Your task to perform on an android device: Add "razer blade" to the cart on ebay.com, then select checkout. Image 0: 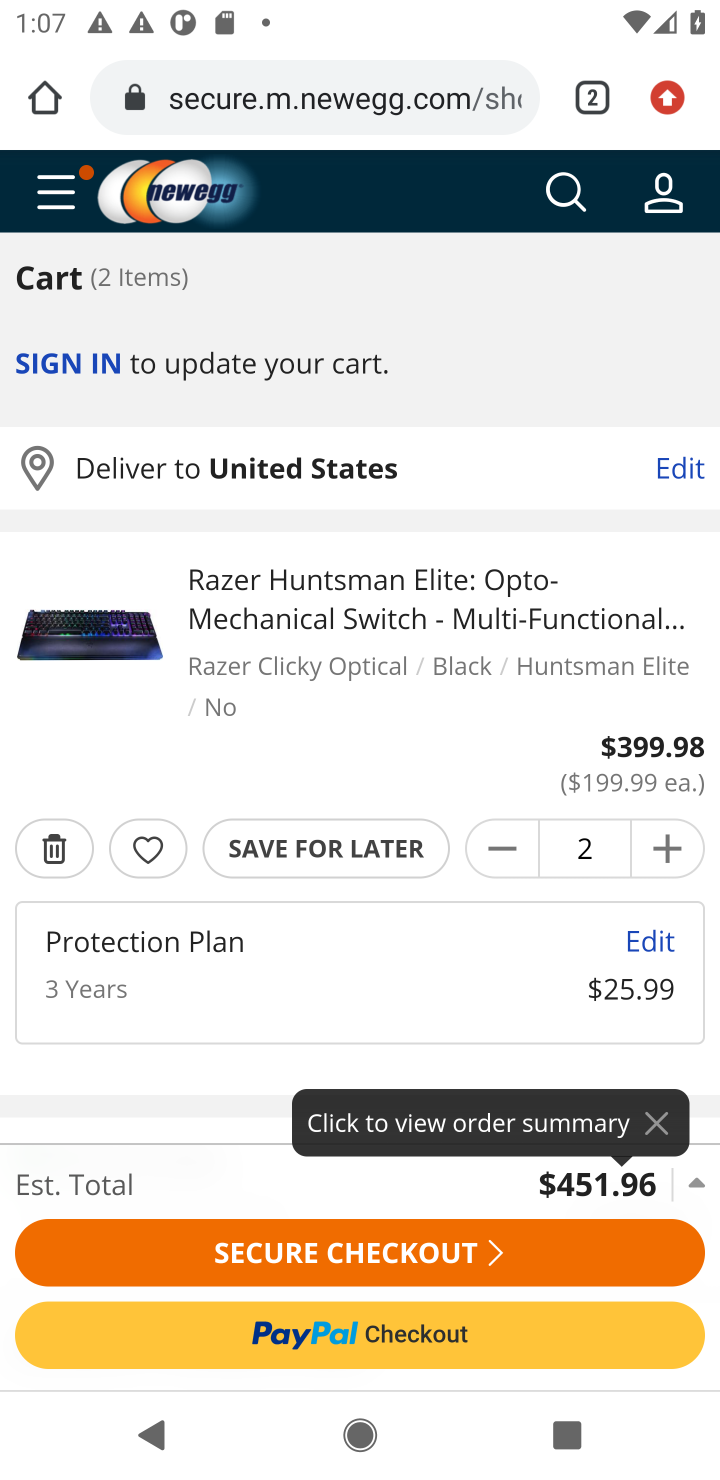
Step 0: press home button
Your task to perform on an android device: Add "razer blade" to the cart on ebay.com, then select checkout. Image 1: 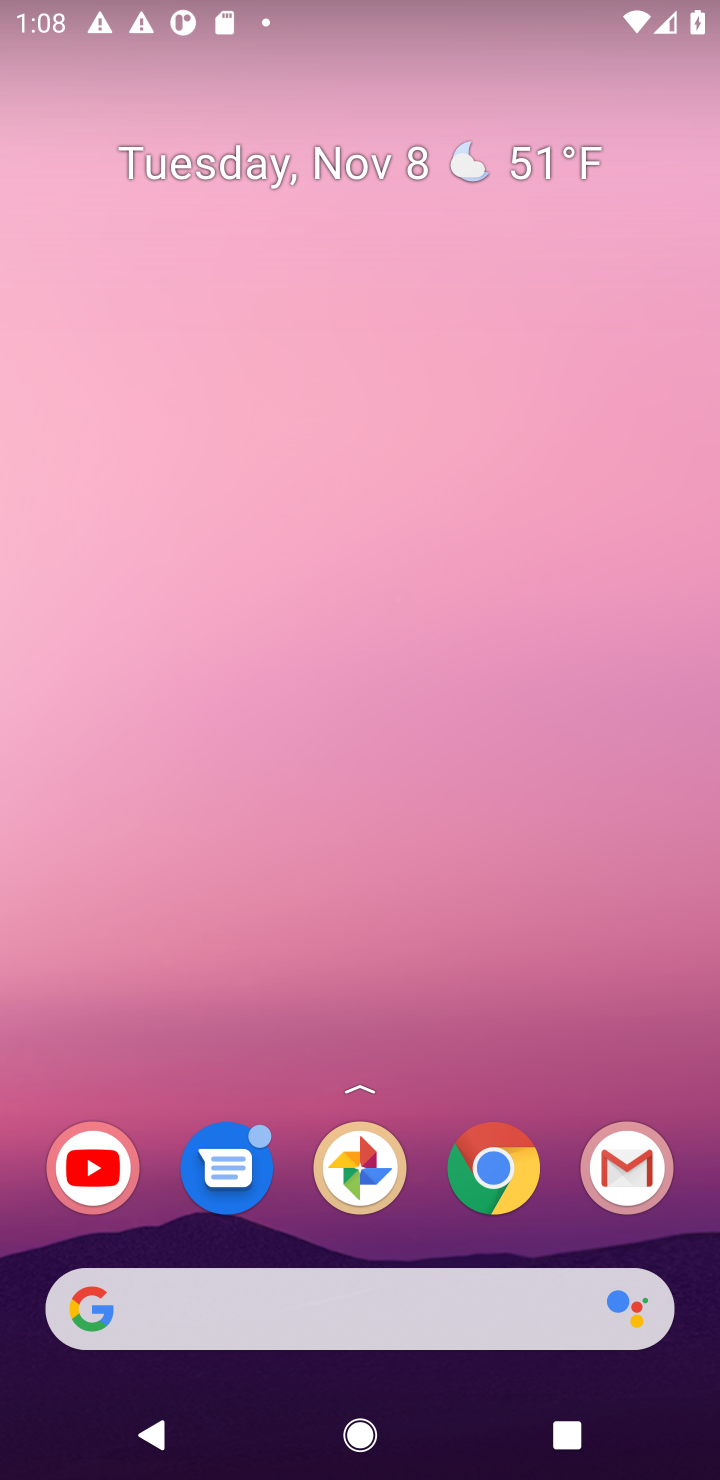
Step 1: drag from (403, 1186) to (538, 374)
Your task to perform on an android device: Add "razer blade" to the cart on ebay.com, then select checkout. Image 2: 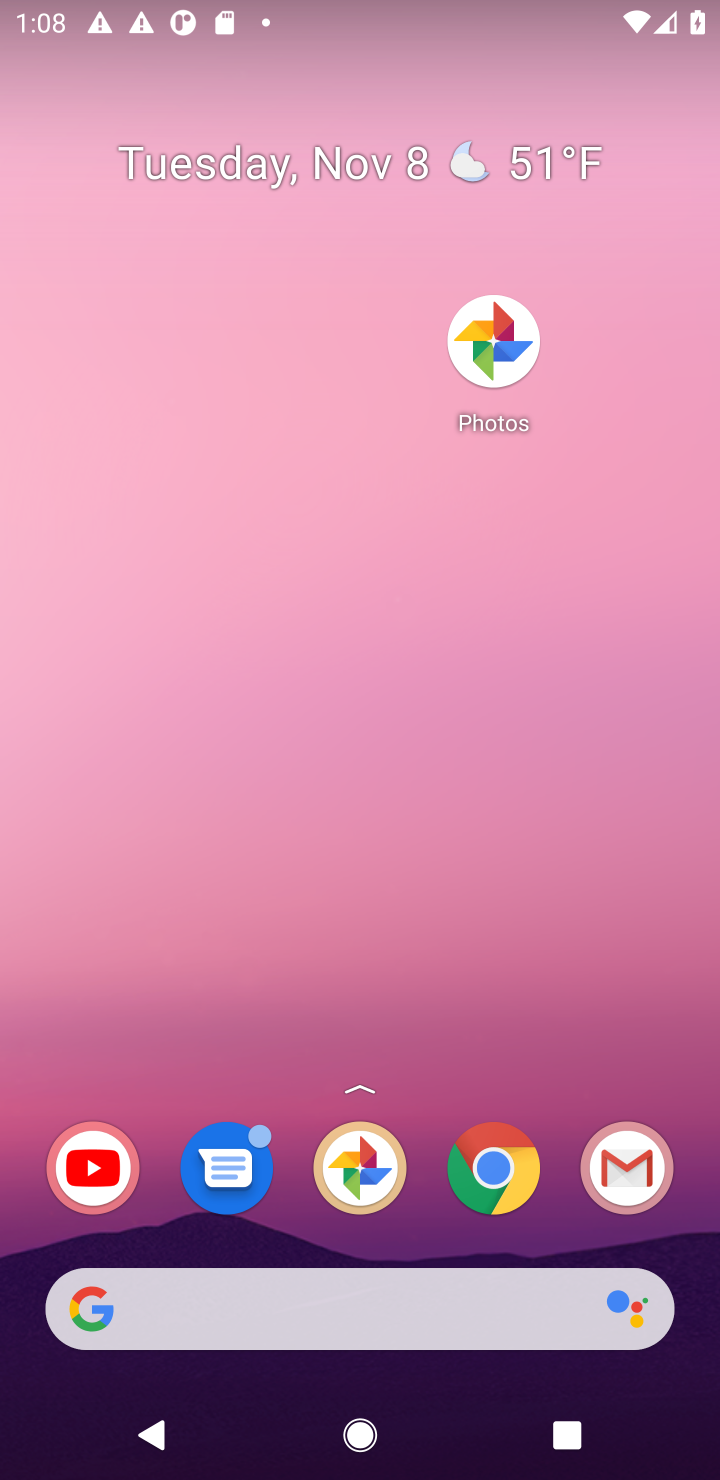
Step 2: click (511, 713)
Your task to perform on an android device: Add "razer blade" to the cart on ebay.com, then select checkout. Image 3: 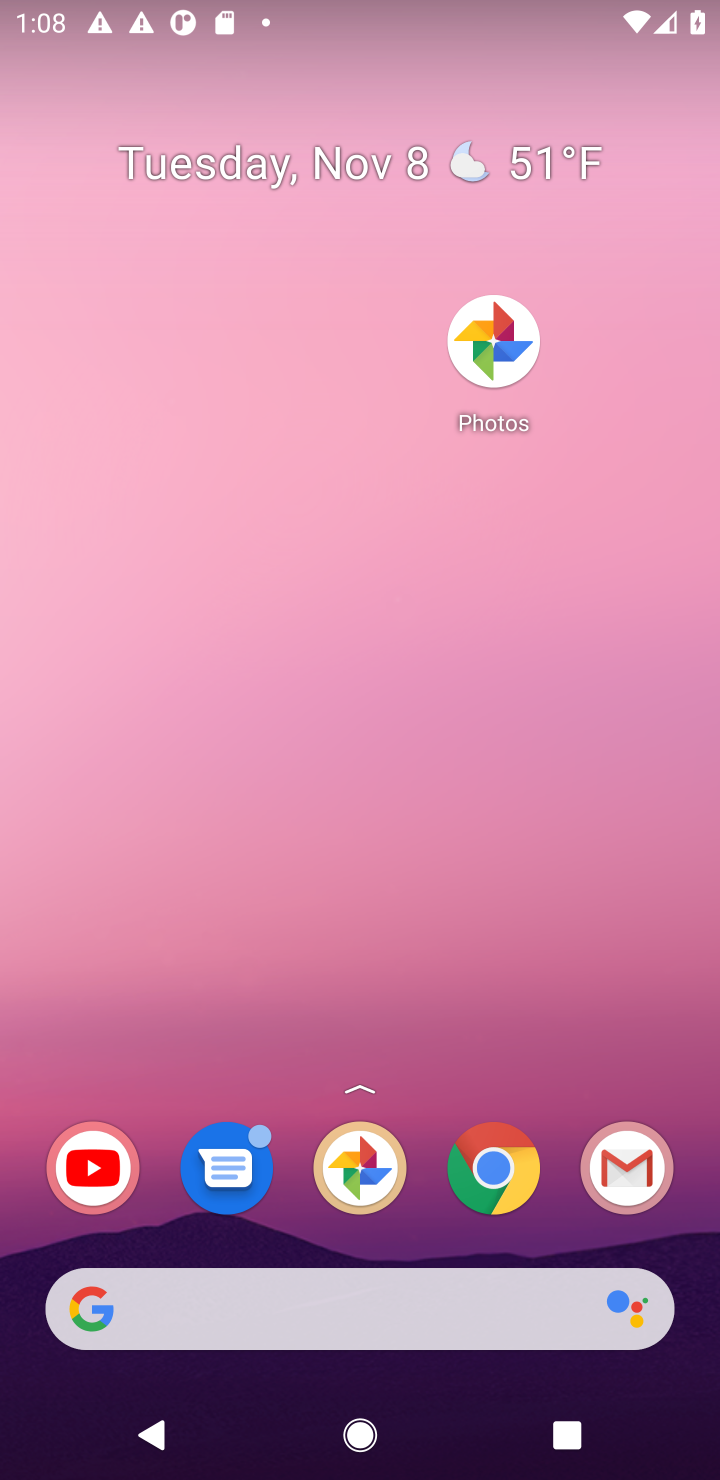
Step 3: drag from (328, 1336) to (431, 80)
Your task to perform on an android device: Add "razer blade" to the cart on ebay.com, then select checkout. Image 4: 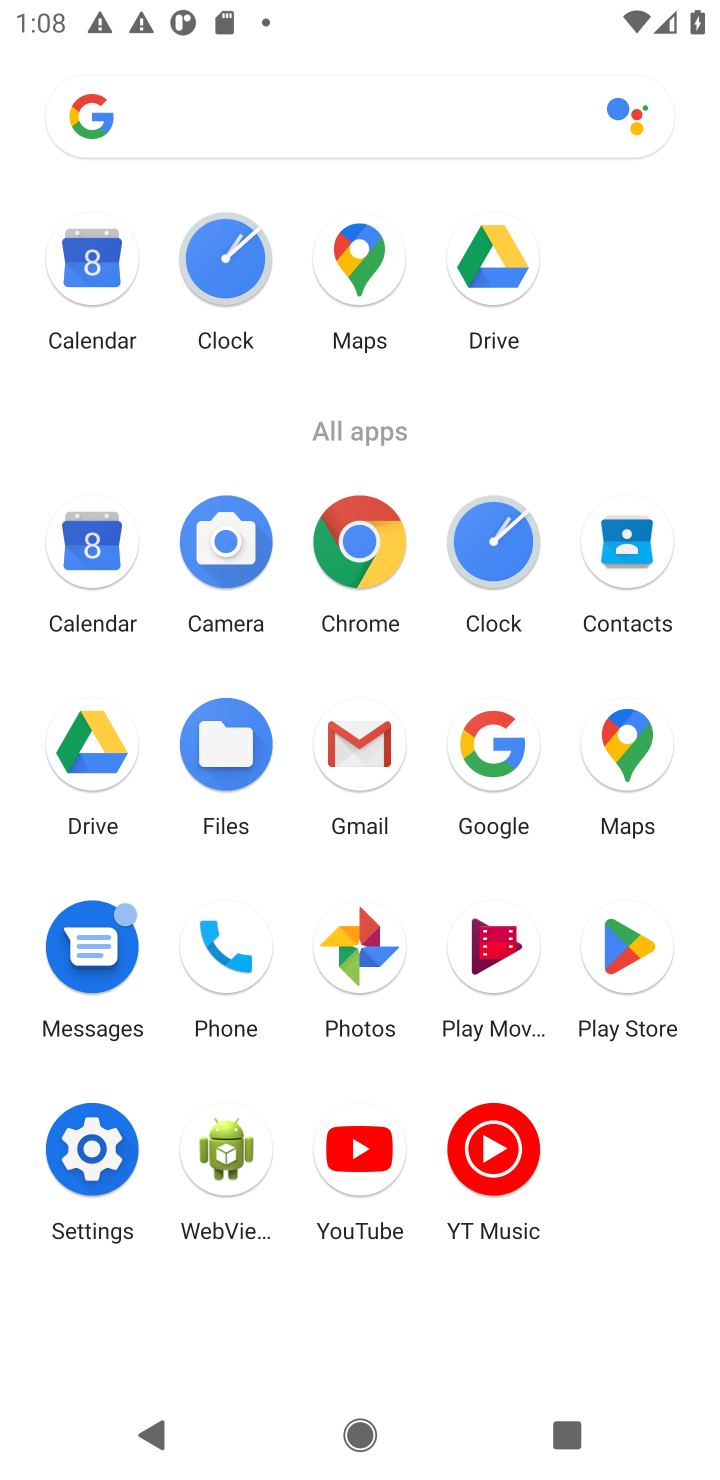
Step 4: click (357, 548)
Your task to perform on an android device: Add "razer blade" to the cart on ebay.com, then select checkout. Image 5: 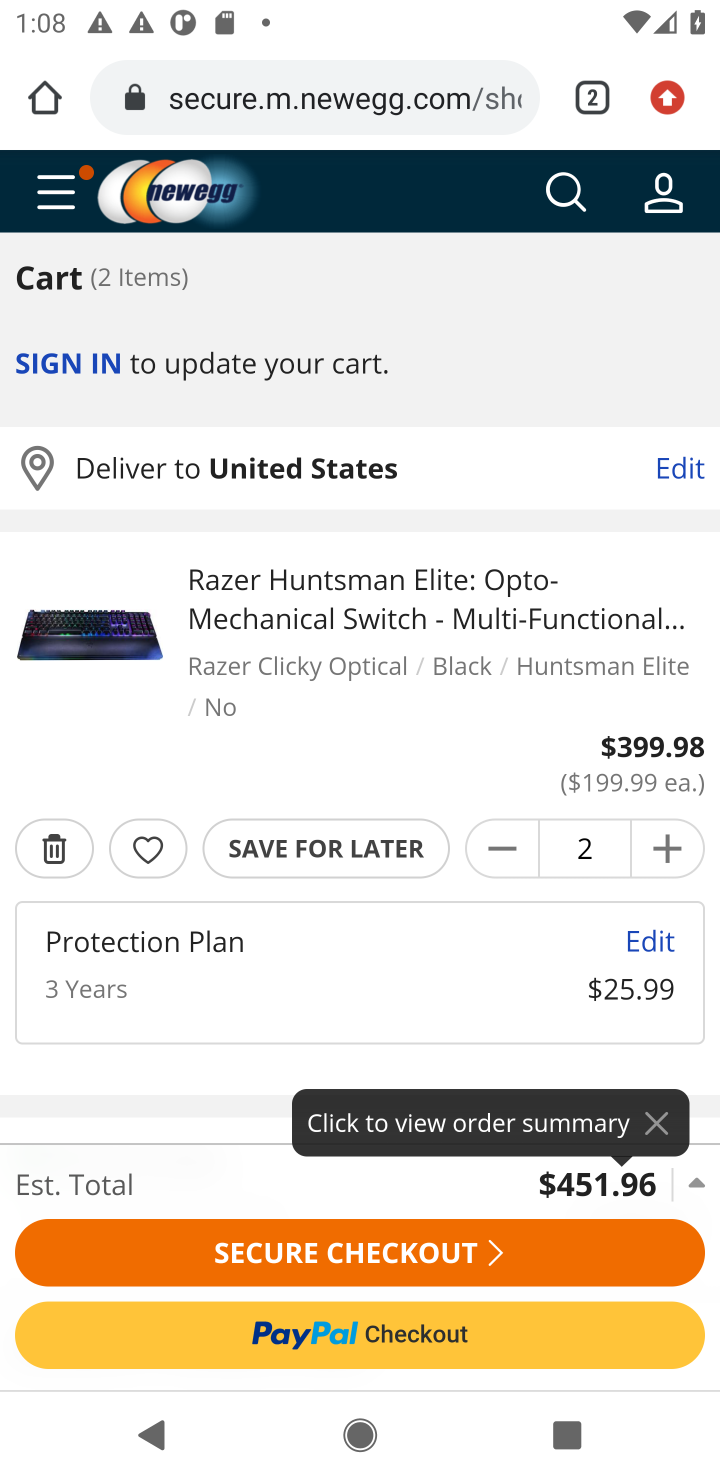
Step 5: click (284, 105)
Your task to perform on an android device: Add "razer blade" to the cart on ebay.com, then select checkout. Image 6: 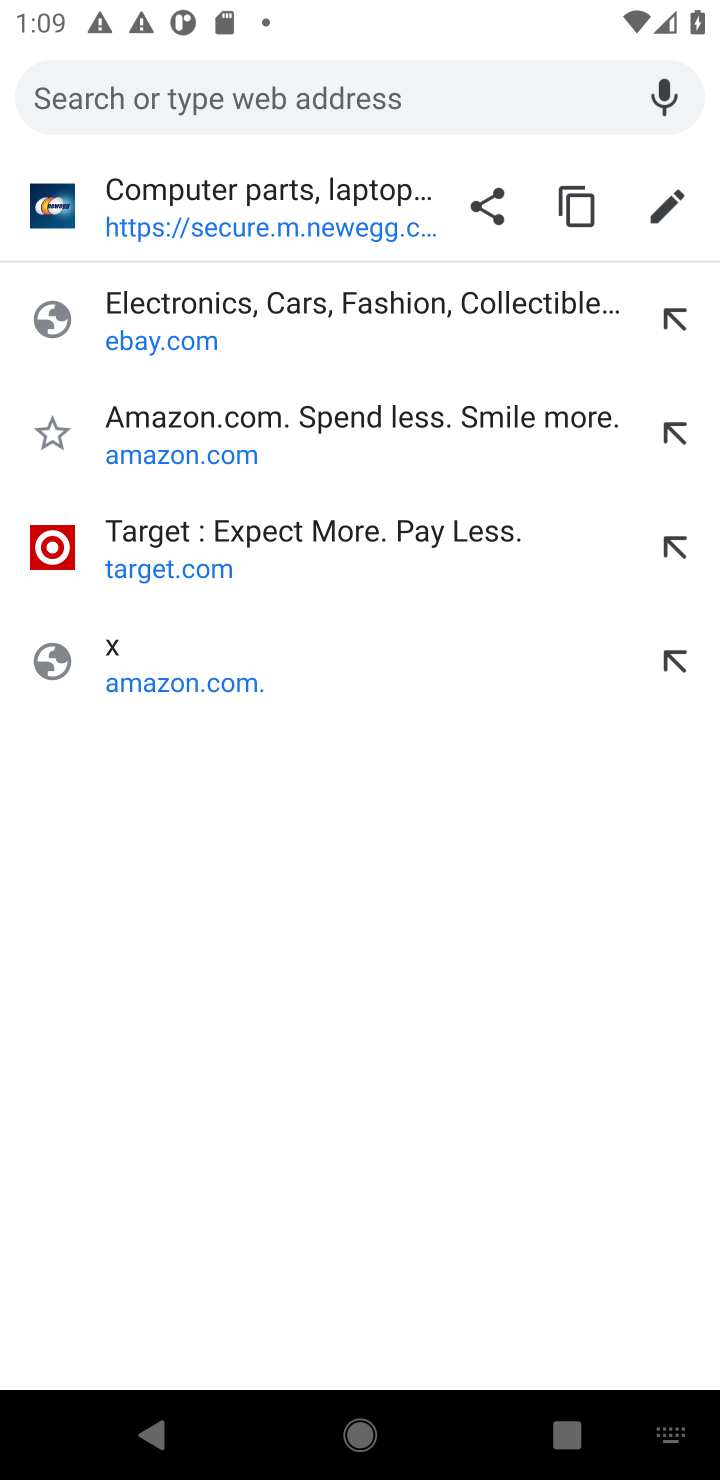
Step 6: type " ebay.com,"
Your task to perform on an android device: Add "razer blade" to the cart on ebay.com, then select checkout. Image 7: 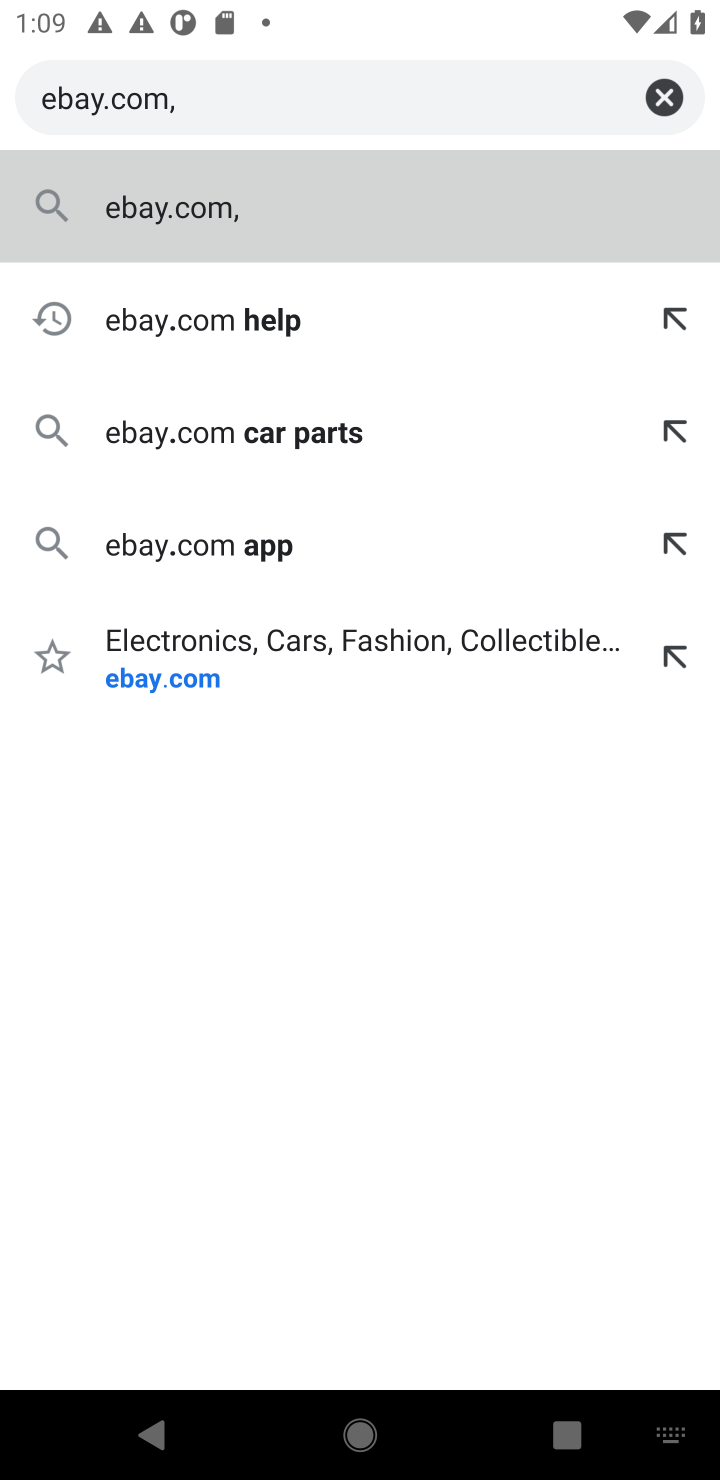
Step 7: press enter
Your task to perform on an android device: Add "razer blade" to the cart on ebay.com, then select checkout. Image 8: 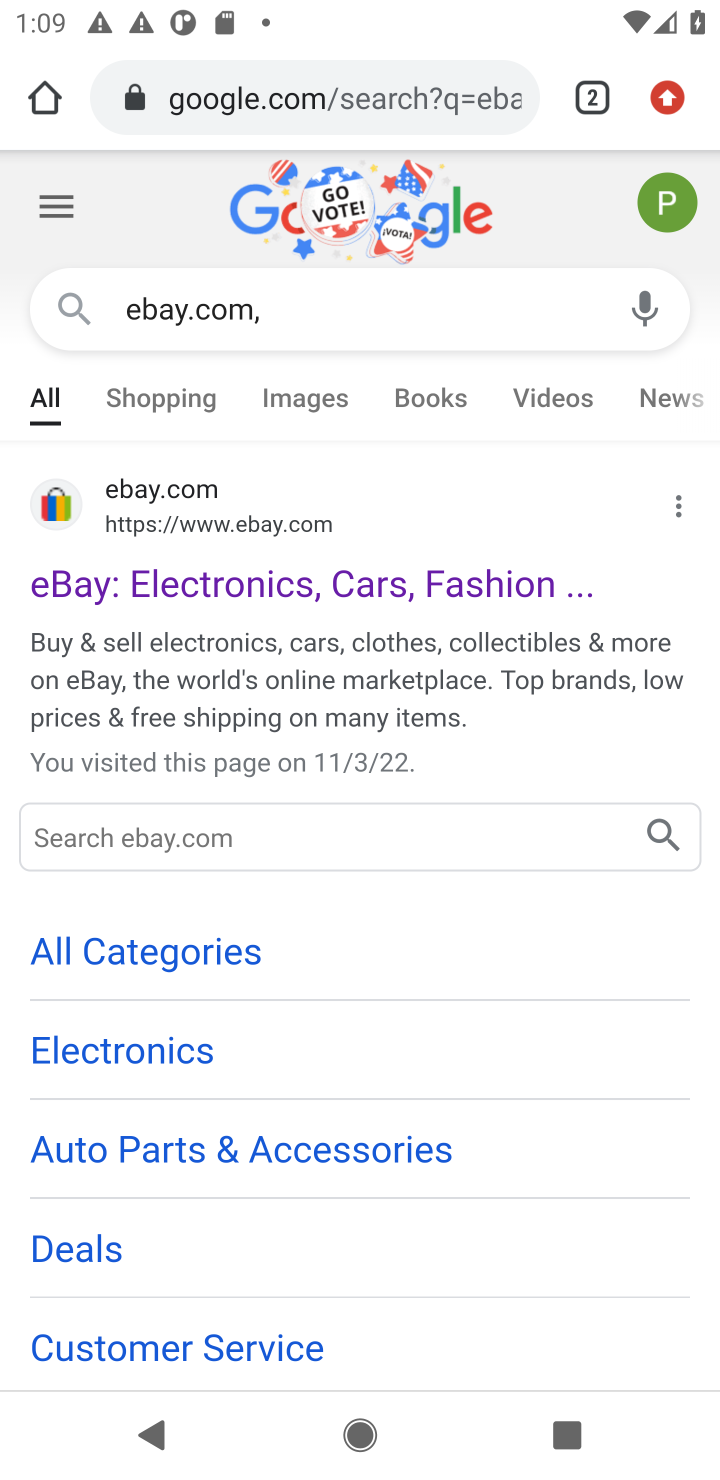
Step 8: click (123, 514)
Your task to perform on an android device: Add "razer blade" to the cart on ebay.com, then select checkout. Image 9: 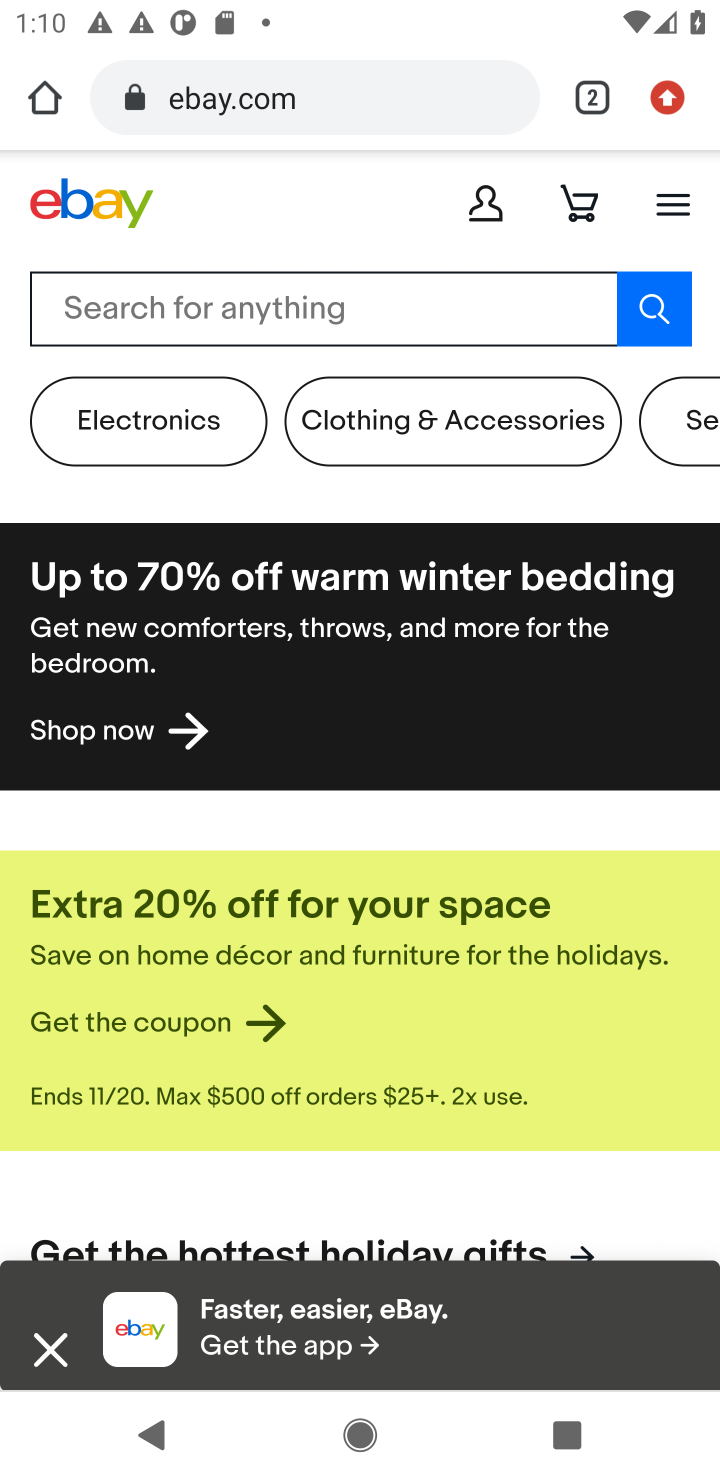
Step 9: click (119, 305)
Your task to perform on an android device: Add "razer blade" to the cart on ebay.com, then select checkout. Image 10: 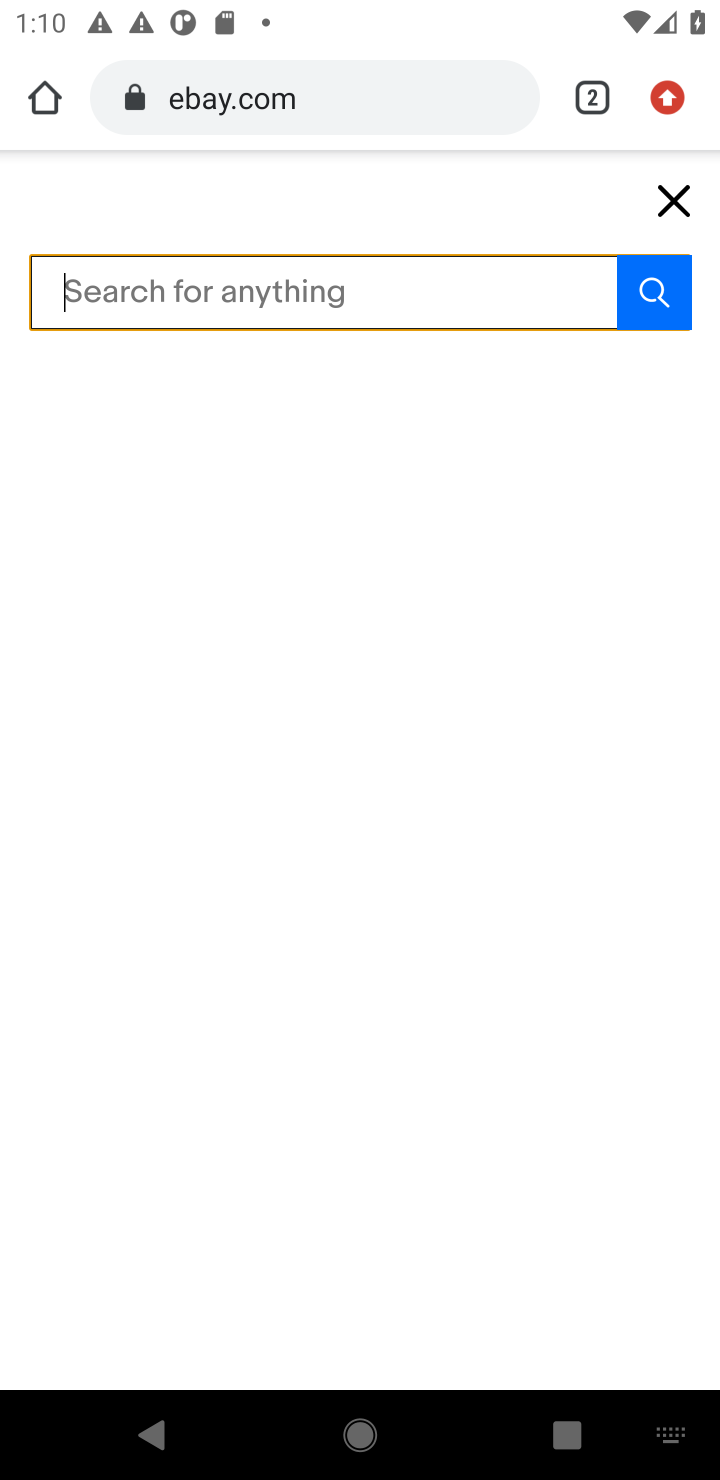
Step 10: type "razer blade"
Your task to perform on an android device: Add "razer blade" to the cart on ebay.com, then select checkout. Image 11: 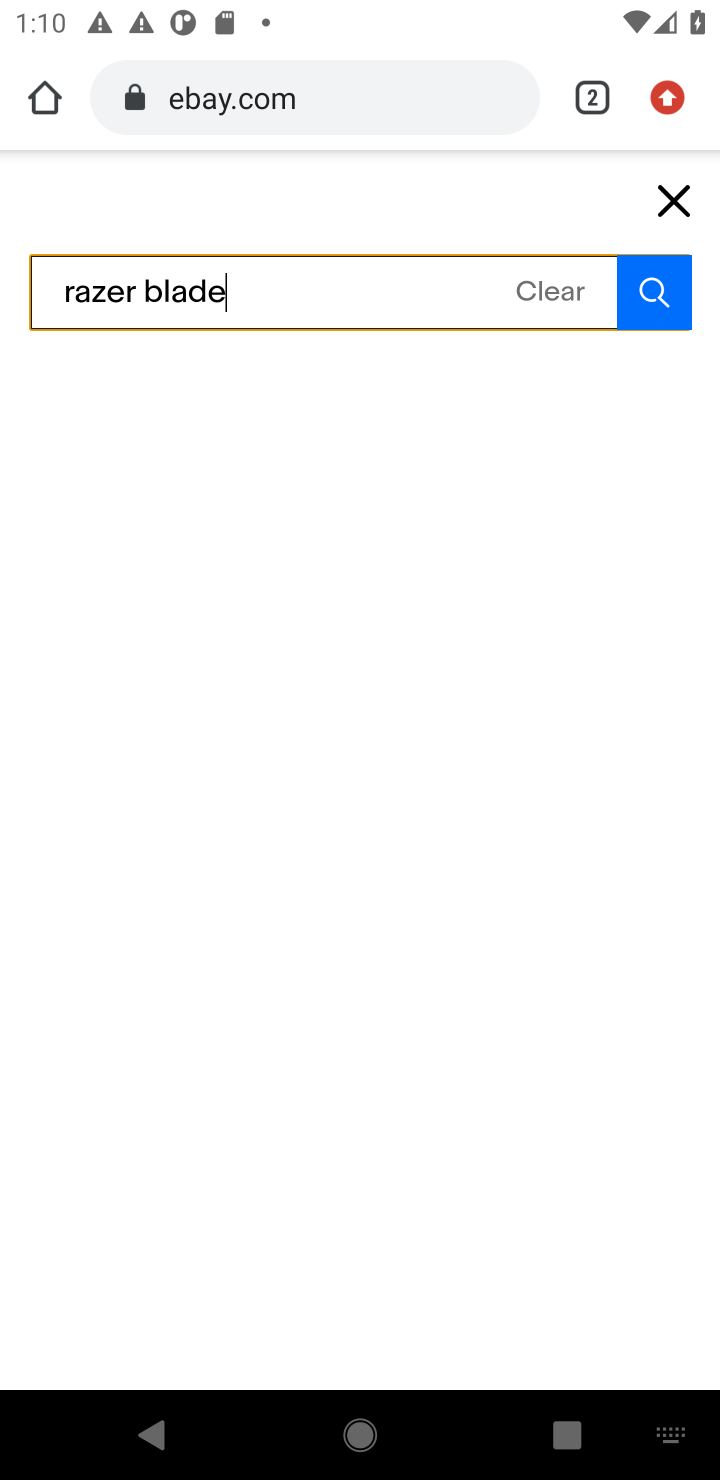
Step 11: press enter
Your task to perform on an android device: Add "razer blade" to the cart on ebay.com, then select checkout. Image 12: 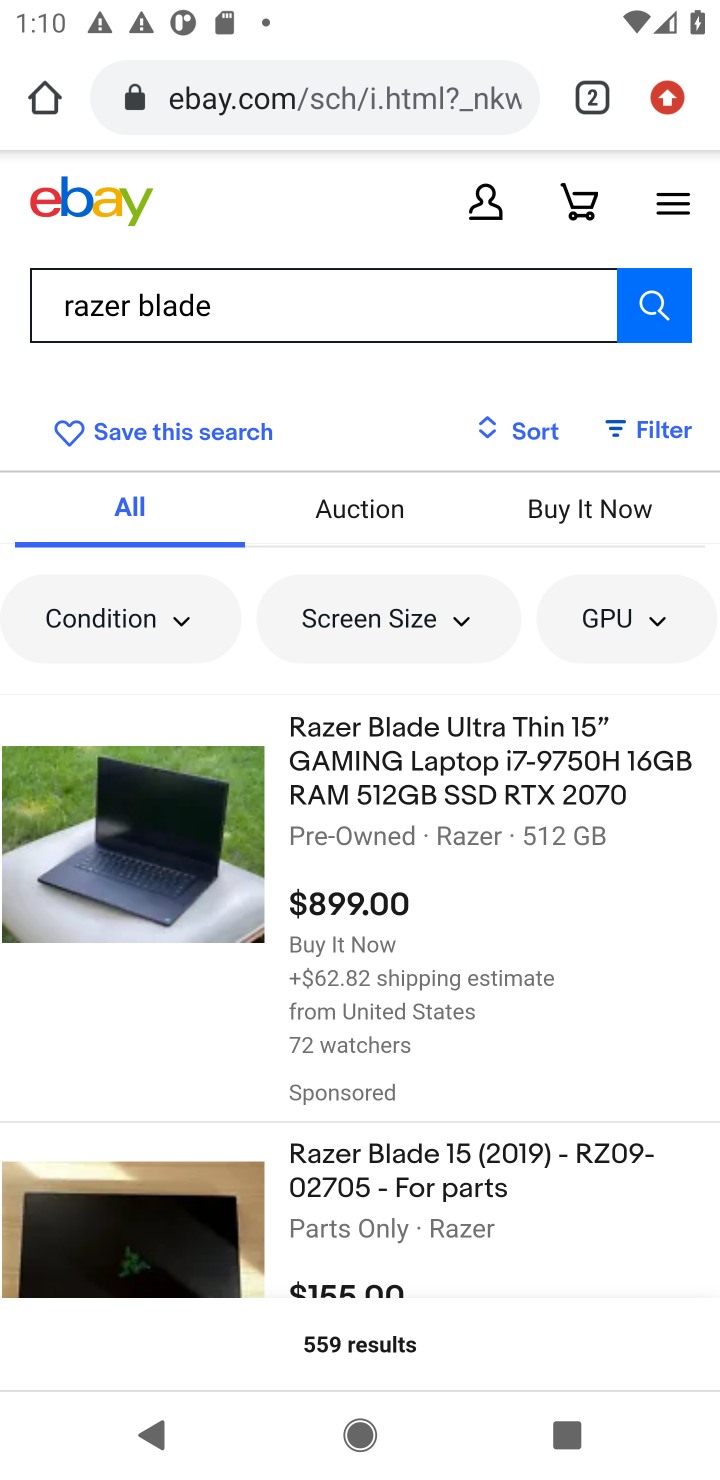
Step 12: click (453, 778)
Your task to perform on an android device: Add "razer blade" to the cart on ebay.com, then select checkout. Image 13: 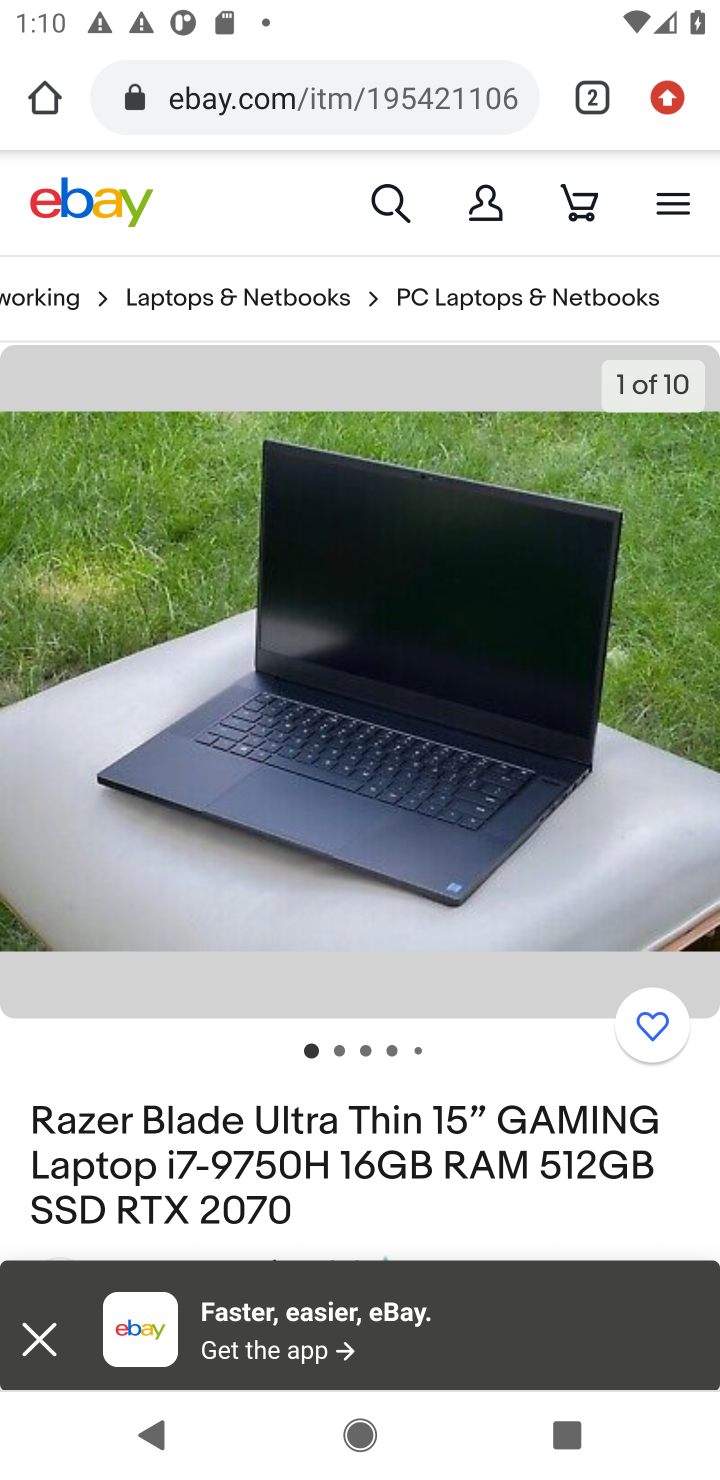
Step 13: drag from (370, 1018) to (378, 592)
Your task to perform on an android device: Add "razer blade" to the cart on ebay.com, then select checkout. Image 14: 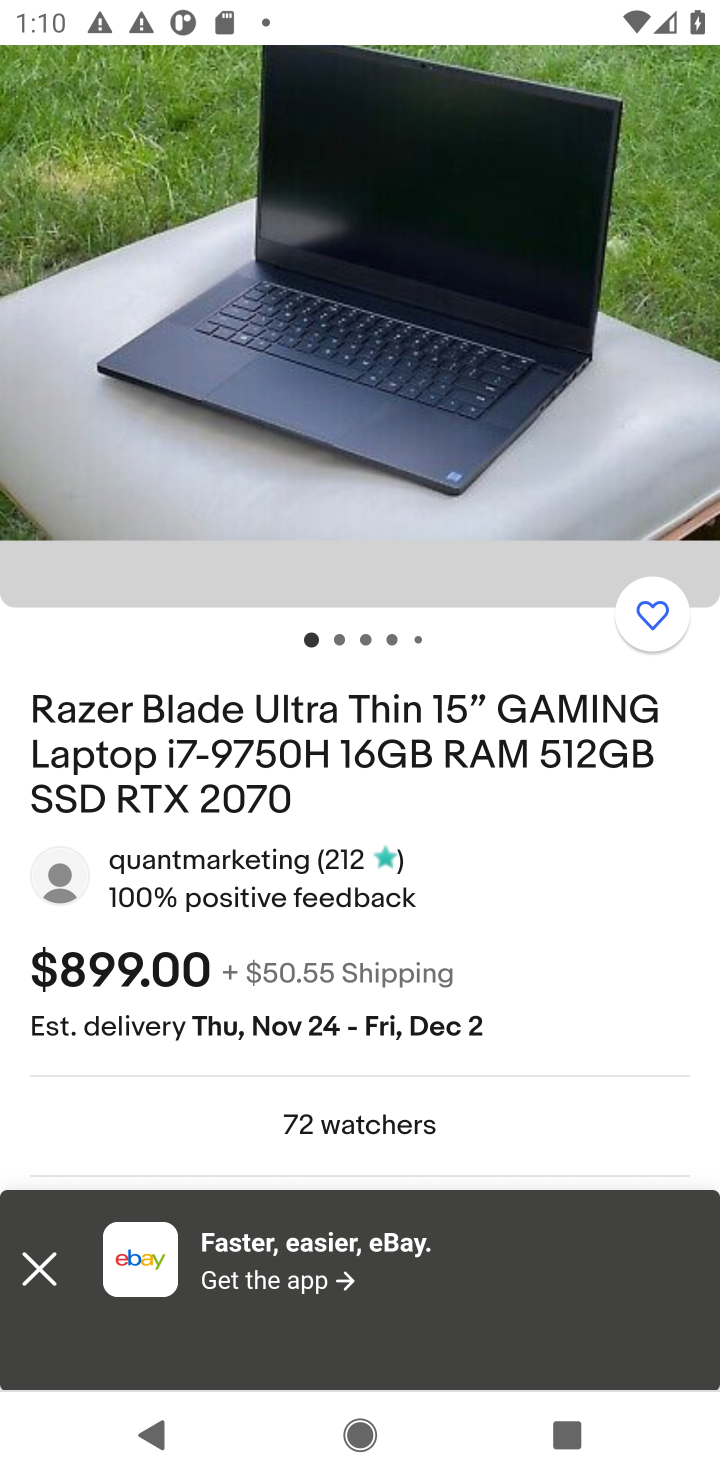
Step 14: drag from (333, 961) to (316, 555)
Your task to perform on an android device: Add "razer blade" to the cart on ebay.com, then select checkout. Image 15: 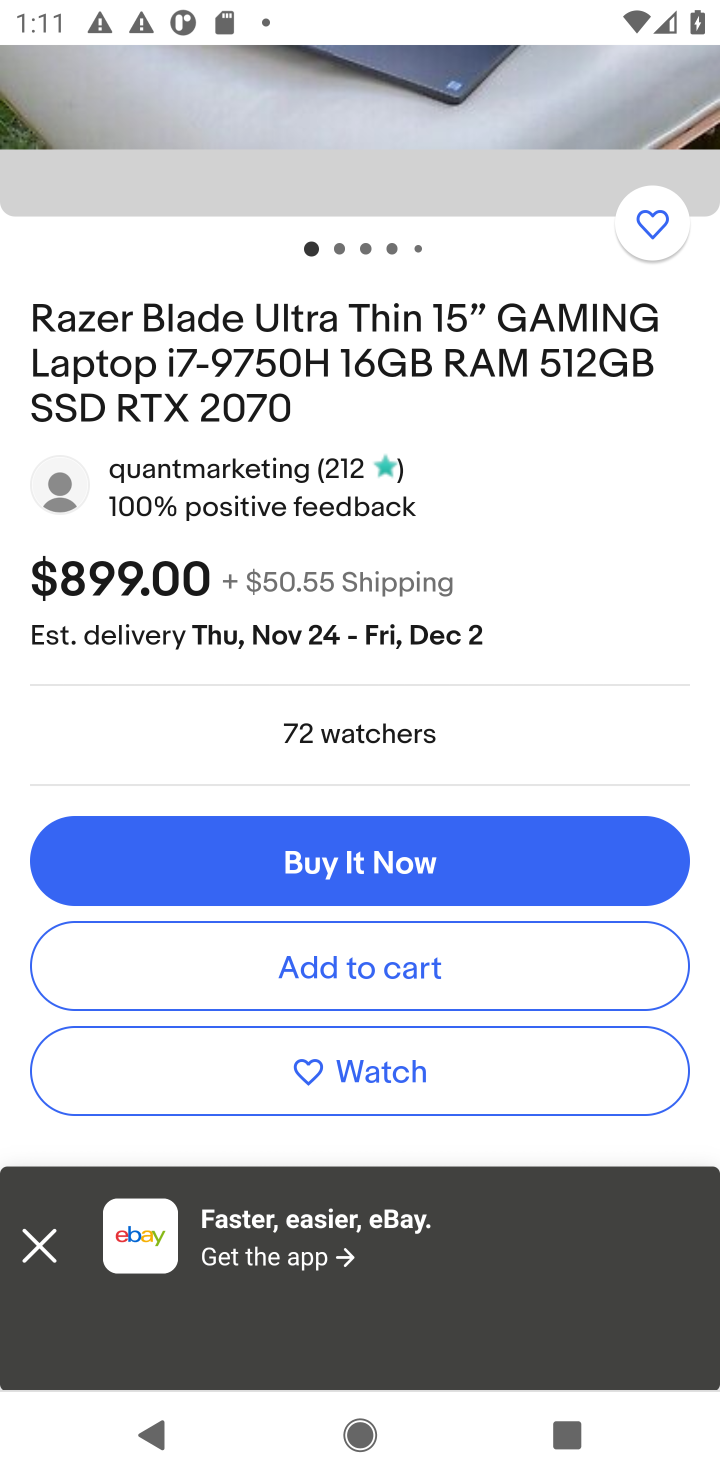
Step 15: click (391, 974)
Your task to perform on an android device: Add "razer blade" to the cart on ebay.com, then select checkout. Image 16: 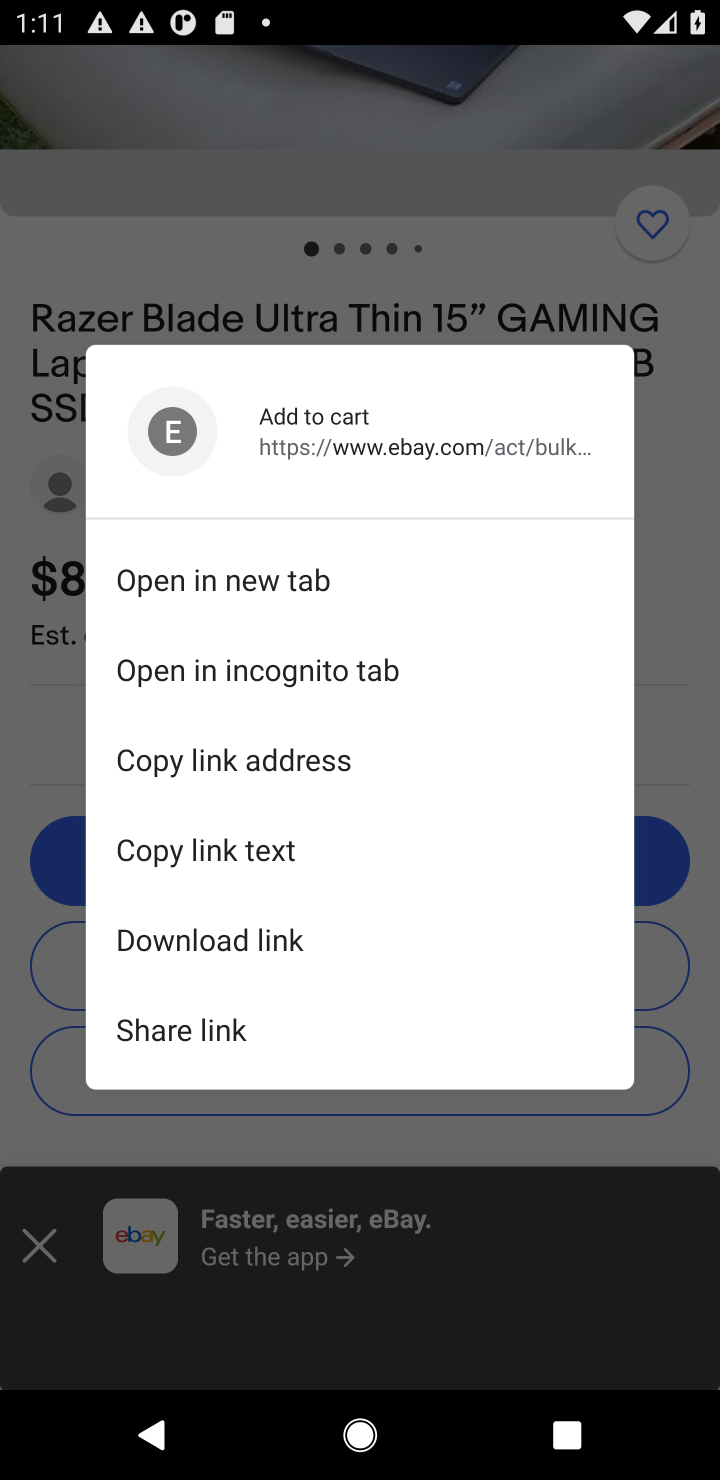
Step 16: click (686, 424)
Your task to perform on an android device: Add "razer blade" to the cart on ebay.com, then select checkout. Image 17: 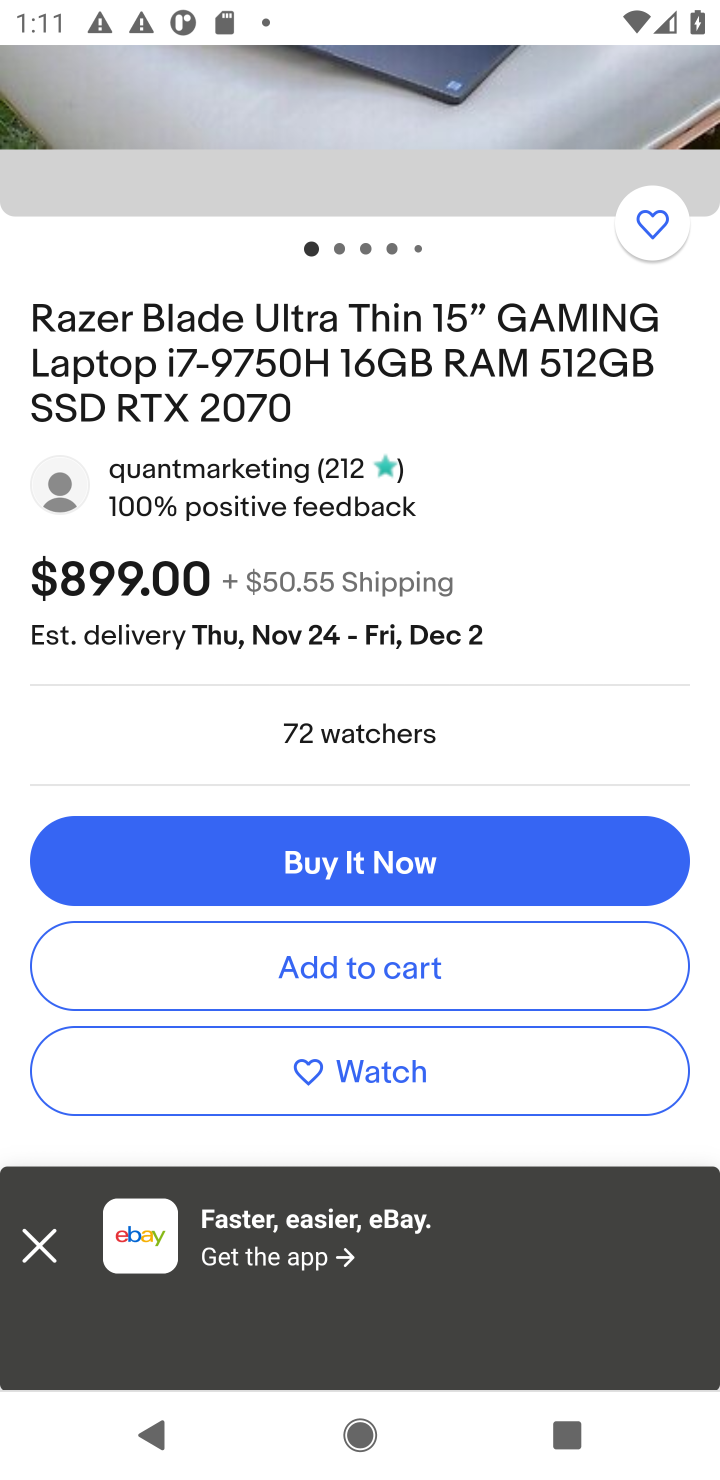
Step 17: click (452, 974)
Your task to perform on an android device: Add "razer blade" to the cart on ebay.com, then select checkout. Image 18: 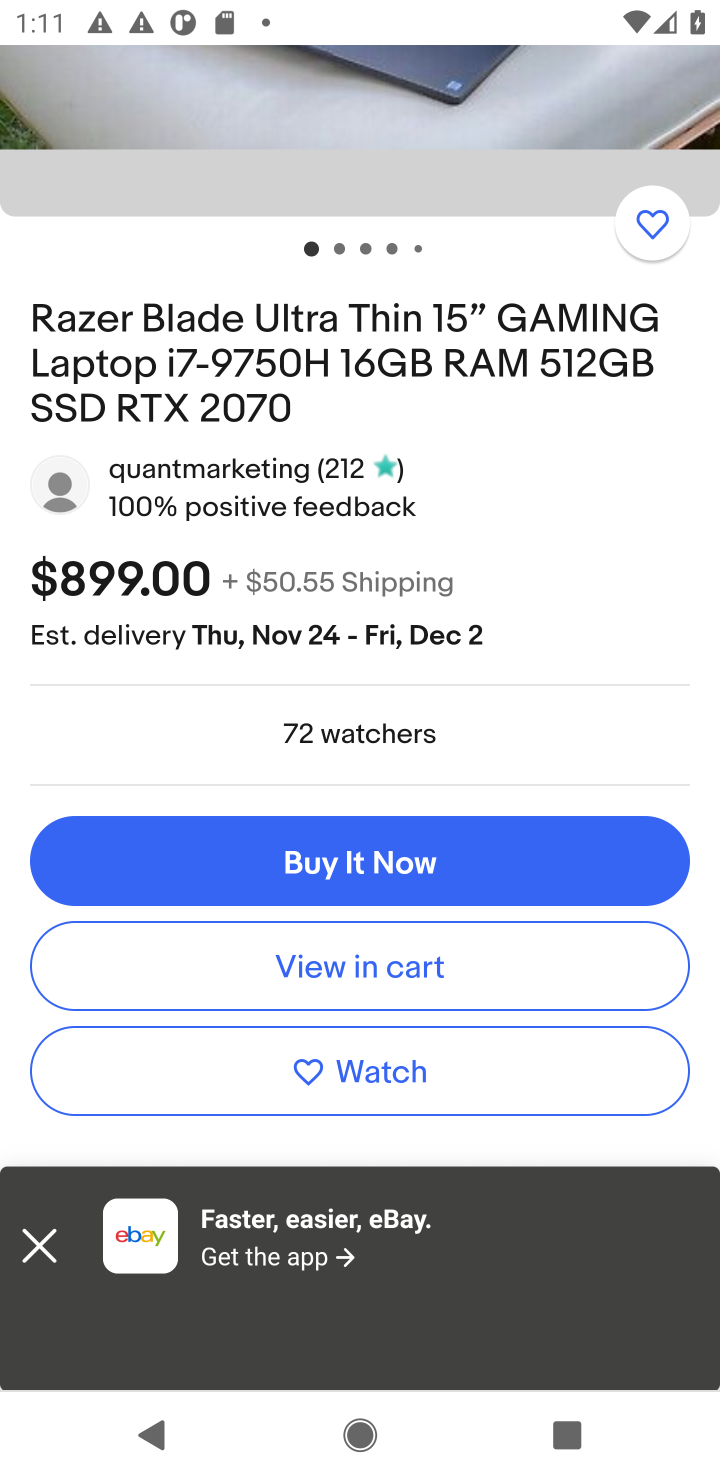
Step 18: click (451, 974)
Your task to perform on an android device: Add "razer blade" to the cart on ebay.com, then select checkout. Image 19: 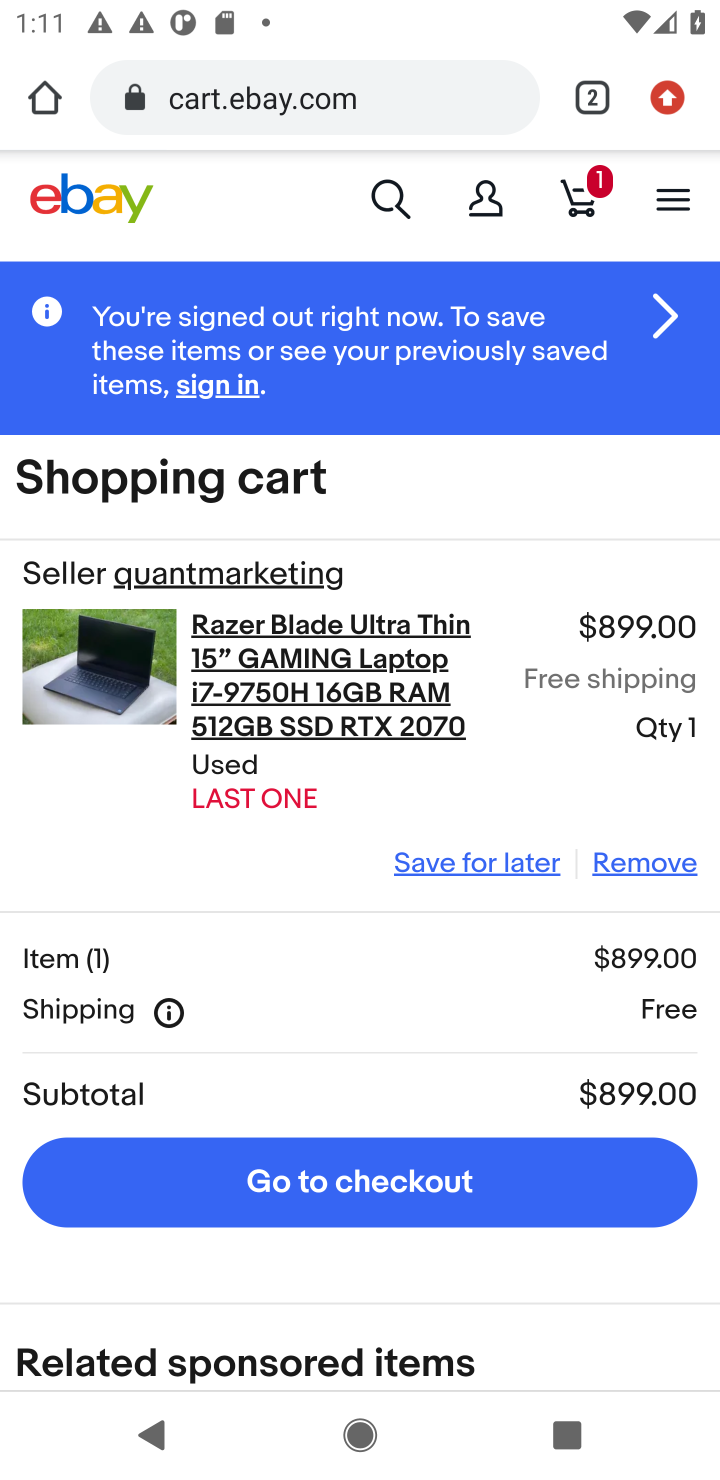
Step 19: click (361, 1182)
Your task to perform on an android device: Add "razer blade" to the cart on ebay.com, then select checkout. Image 20: 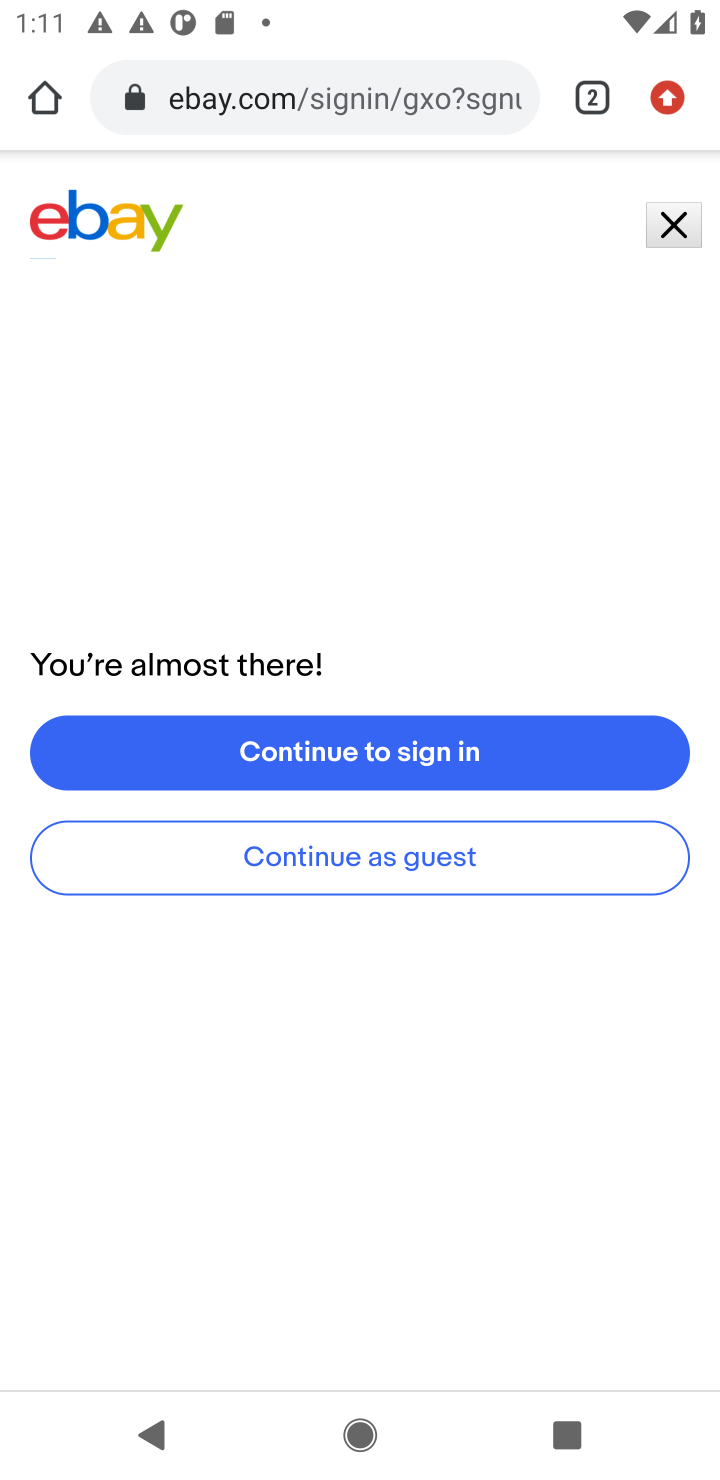
Step 20: task complete